Your task to perform on an android device: change the clock display to show seconds Image 0: 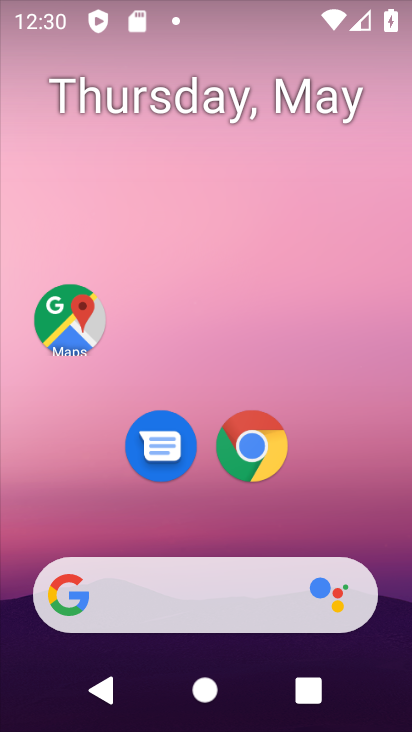
Step 0: drag from (370, 526) to (350, 160)
Your task to perform on an android device: change the clock display to show seconds Image 1: 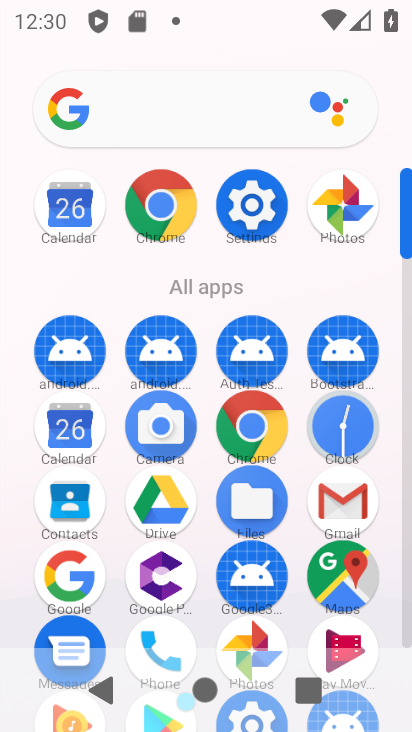
Step 1: click (338, 427)
Your task to perform on an android device: change the clock display to show seconds Image 2: 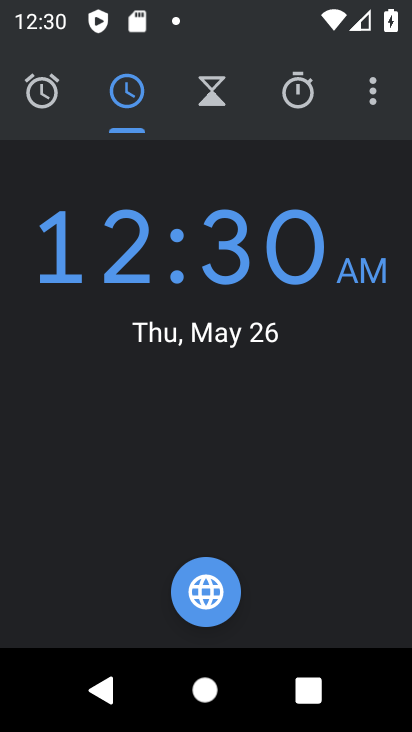
Step 2: click (373, 109)
Your task to perform on an android device: change the clock display to show seconds Image 3: 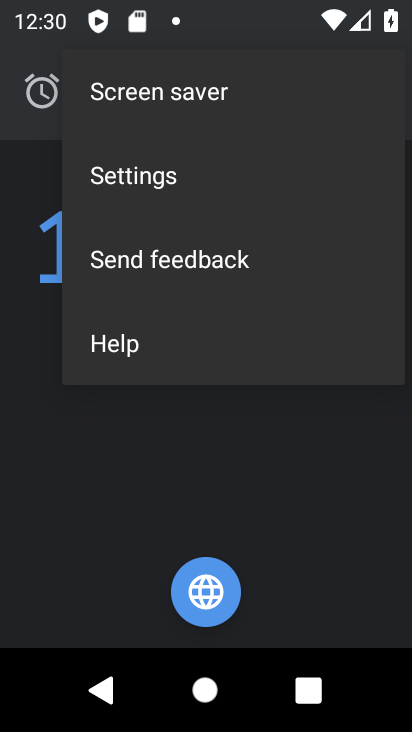
Step 3: click (226, 167)
Your task to perform on an android device: change the clock display to show seconds Image 4: 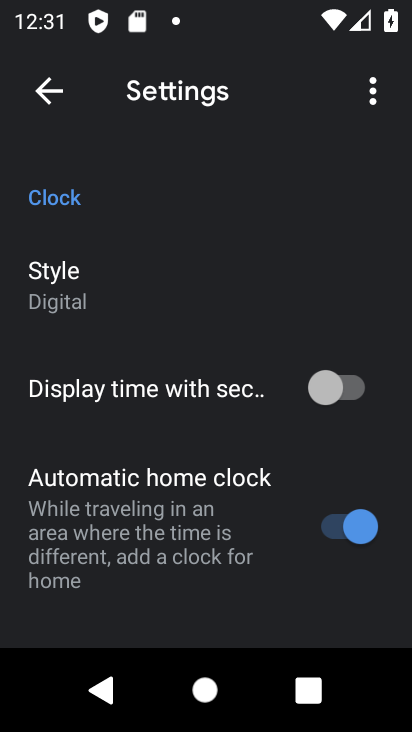
Step 4: task complete